Your task to perform on an android device: turn on showing notifications on the lock screen Image 0: 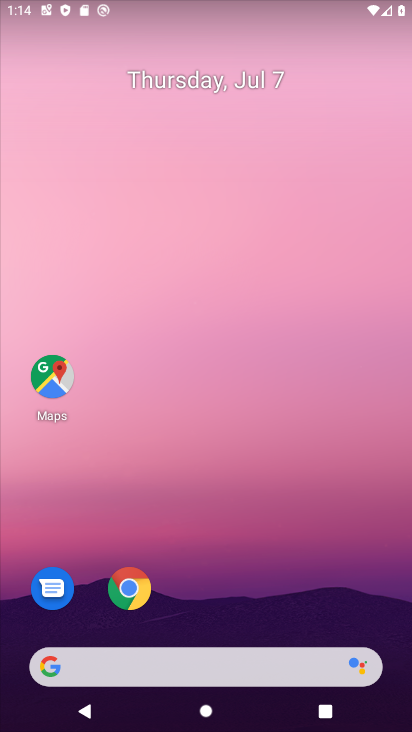
Step 0: drag from (262, 613) to (257, 328)
Your task to perform on an android device: turn on showing notifications on the lock screen Image 1: 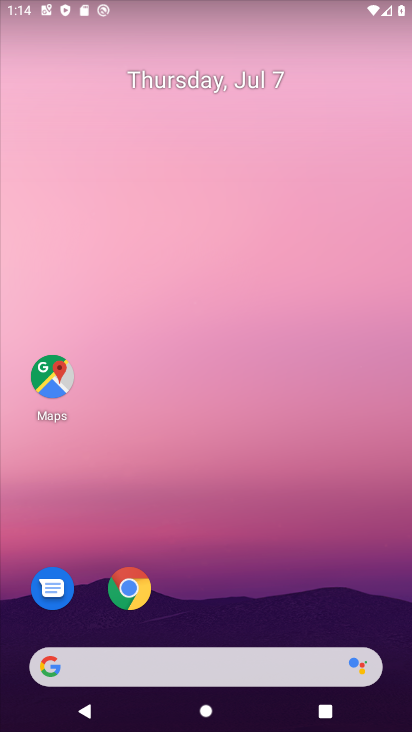
Step 1: drag from (246, 577) to (276, 194)
Your task to perform on an android device: turn on showing notifications on the lock screen Image 2: 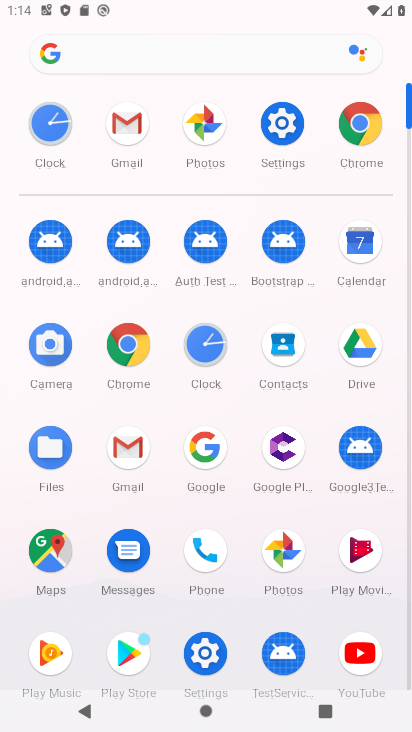
Step 2: click (274, 125)
Your task to perform on an android device: turn on showing notifications on the lock screen Image 3: 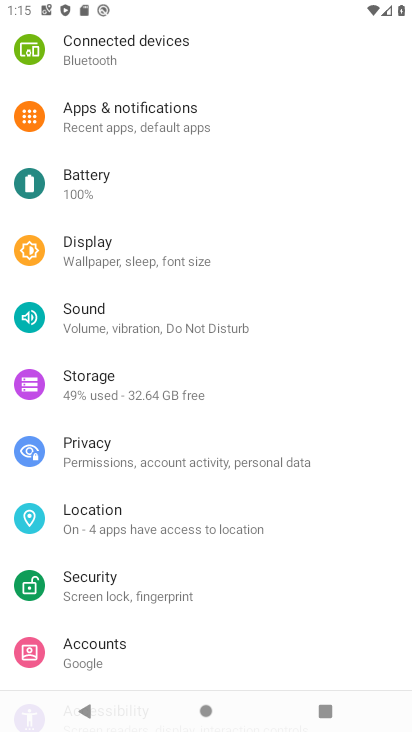
Step 3: drag from (129, 59) to (120, 298)
Your task to perform on an android device: turn on showing notifications on the lock screen Image 4: 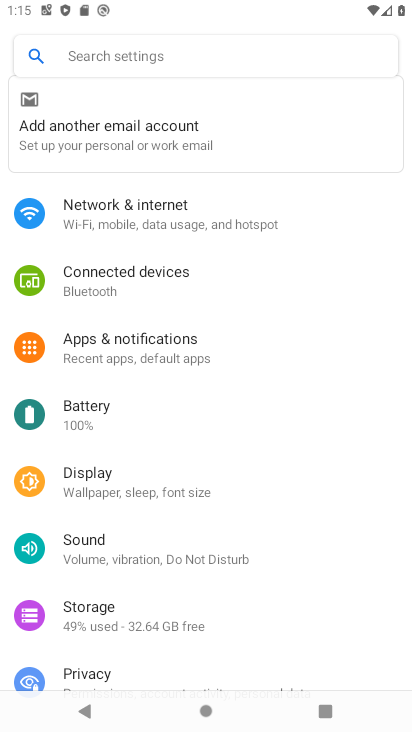
Step 4: click (122, 326)
Your task to perform on an android device: turn on showing notifications on the lock screen Image 5: 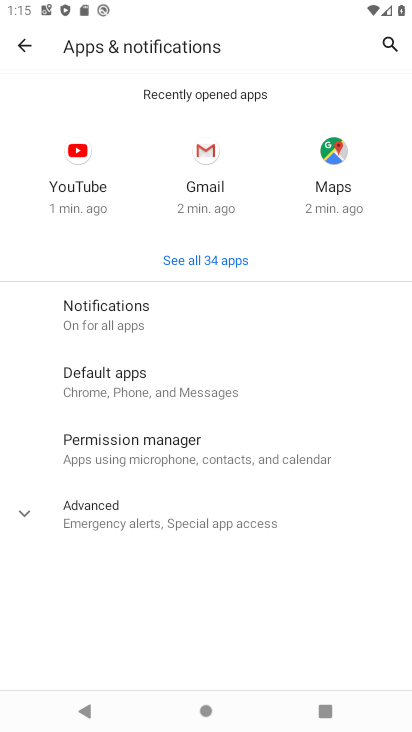
Step 5: click (174, 314)
Your task to perform on an android device: turn on showing notifications on the lock screen Image 6: 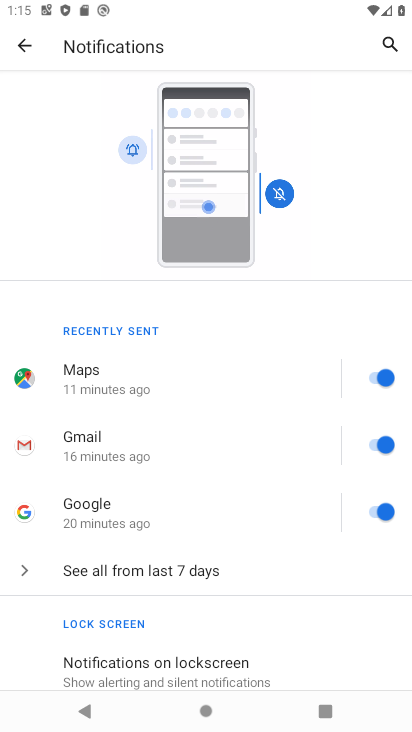
Step 6: drag from (208, 663) to (218, 409)
Your task to perform on an android device: turn on showing notifications on the lock screen Image 7: 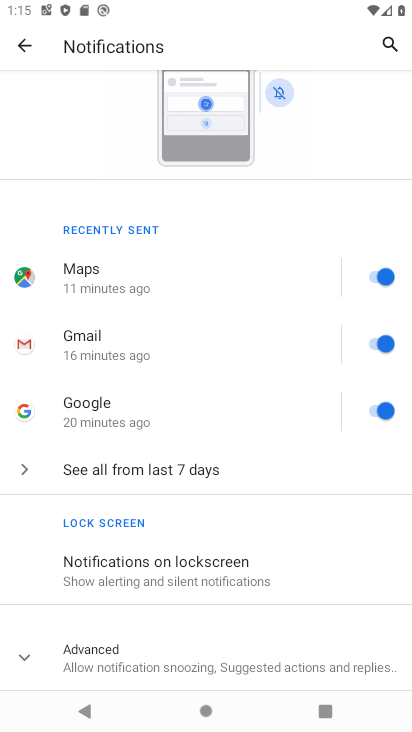
Step 7: click (182, 573)
Your task to perform on an android device: turn on showing notifications on the lock screen Image 8: 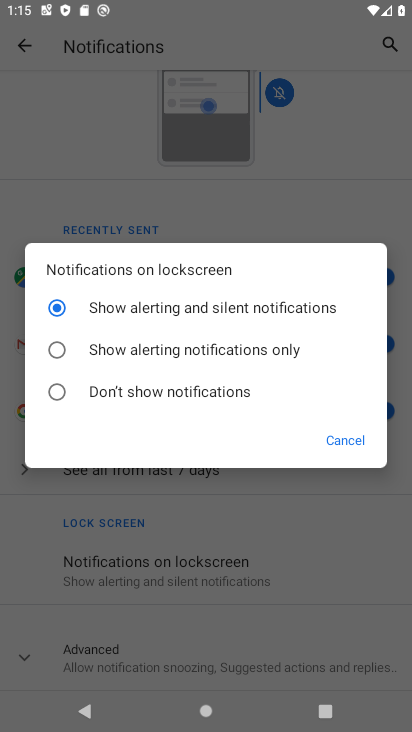
Step 8: click (342, 442)
Your task to perform on an android device: turn on showing notifications on the lock screen Image 9: 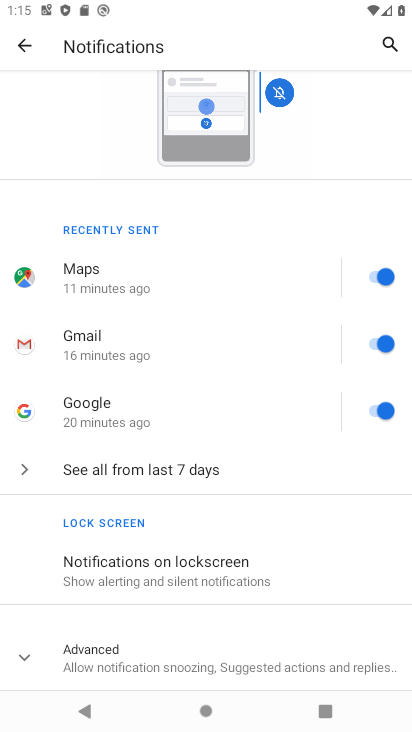
Step 9: task complete